Your task to perform on an android device: Open Yahoo.com Image 0: 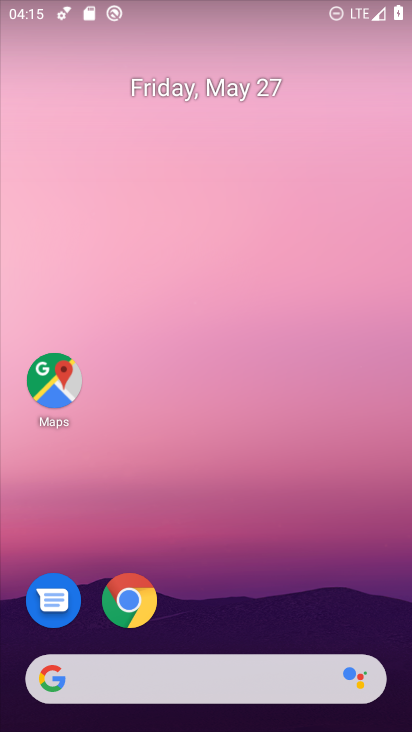
Step 0: click (127, 600)
Your task to perform on an android device: Open Yahoo.com Image 1: 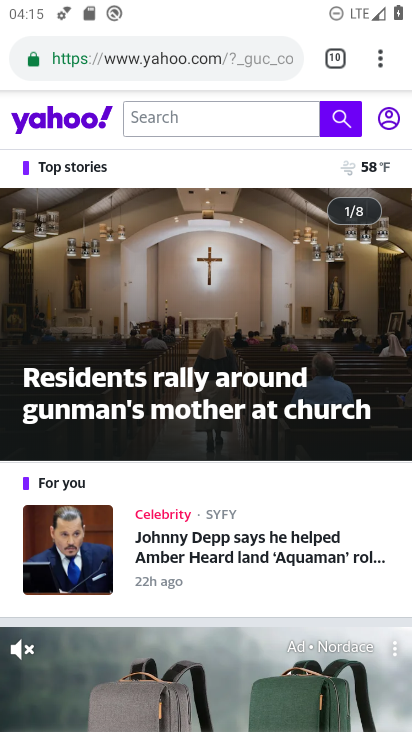
Step 1: task complete